Your task to perform on an android device: Do I have any events today? Image 0: 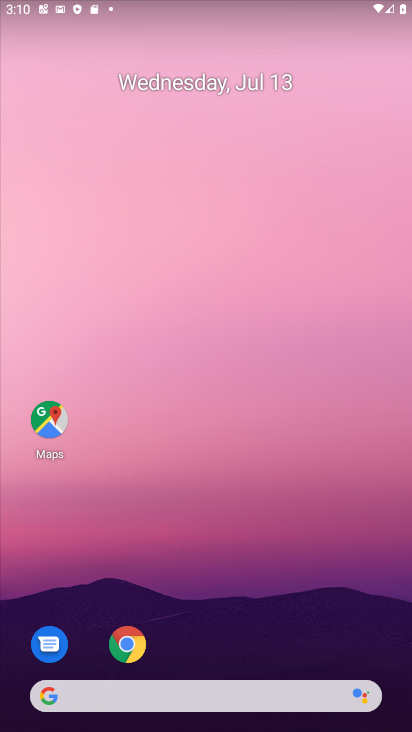
Step 0: drag from (134, 390) to (252, 129)
Your task to perform on an android device: Do I have any events today? Image 1: 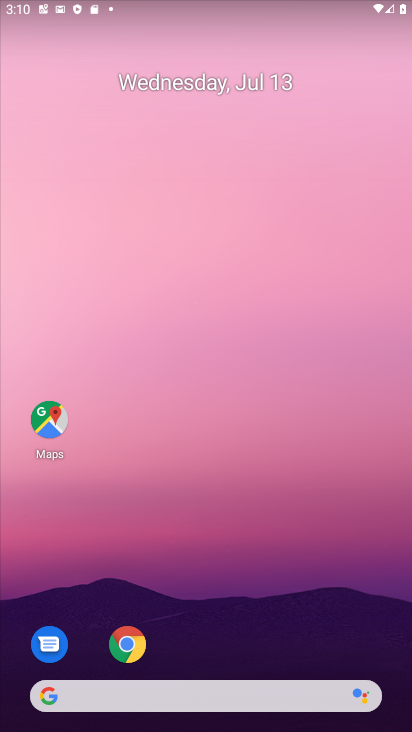
Step 1: drag from (15, 701) to (300, 95)
Your task to perform on an android device: Do I have any events today? Image 2: 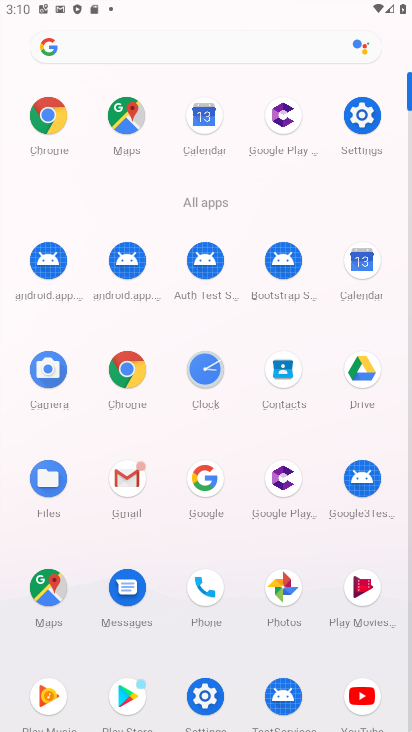
Step 2: click (349, 278)
Your task to perform on an android device: Do I have any events today? Image 3: 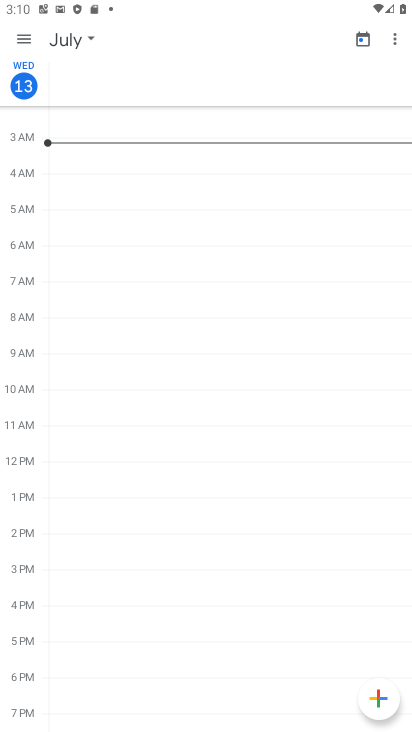
Step 3: click (27, 45)
Your task to perform on an android device: Do I have any events today? Image 4: 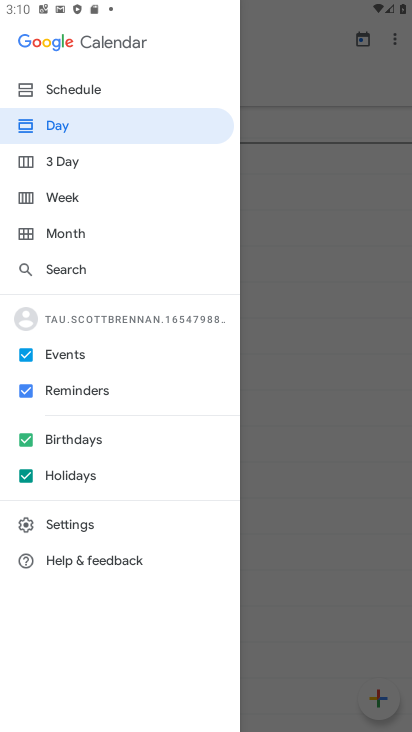
Step 4: task complete